Your task to perform on an android device: turn on translation in the chrome app Image 0: 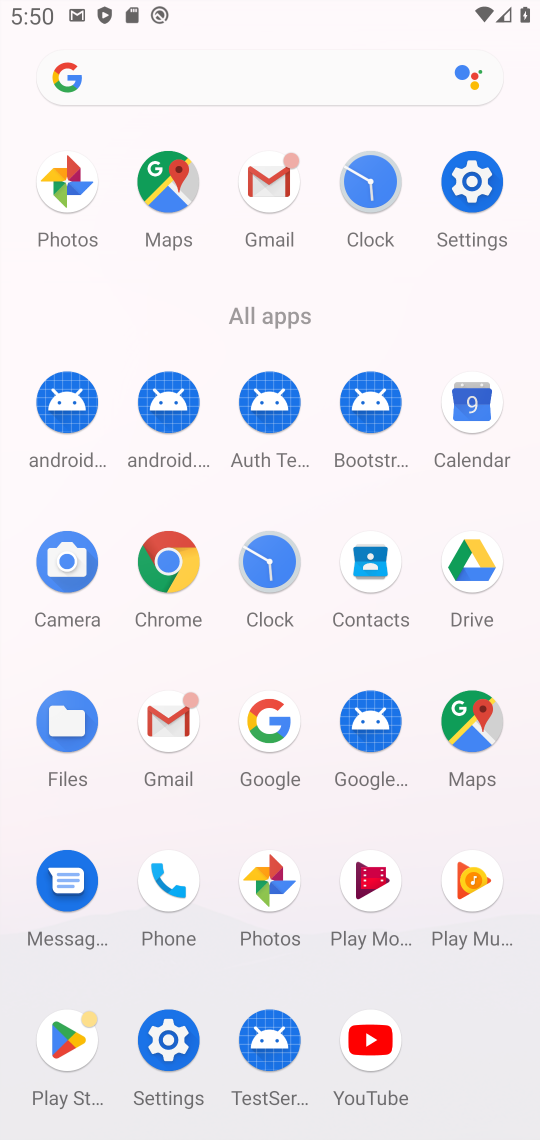
Step 0: click (186, 578)
Your task to perform on an android device: turn on translation in the chrome app Image 1: 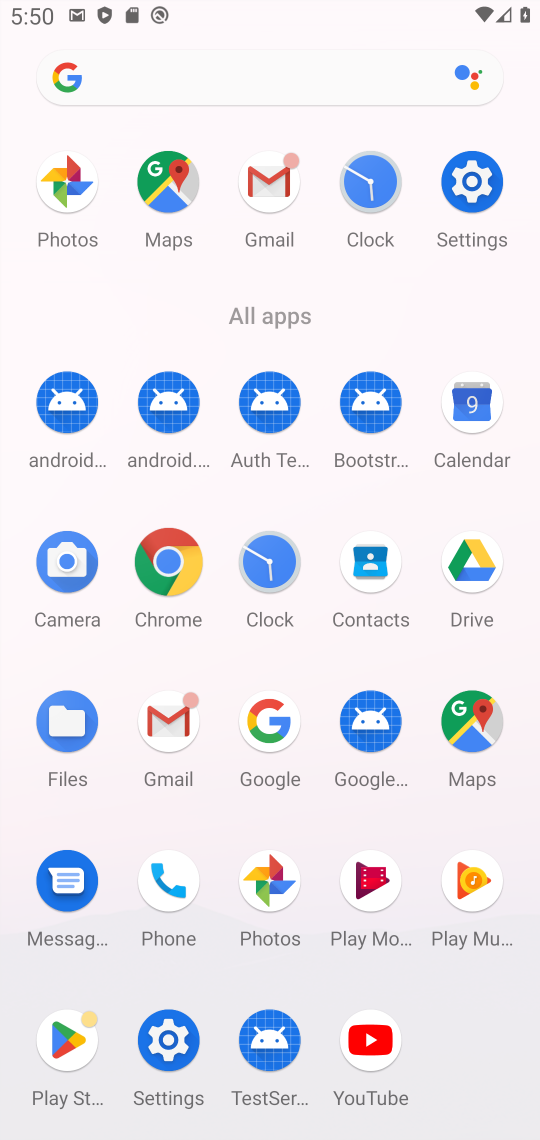
Step 1: click (180, 577)
Your task to perform on an android device: turn on translation in the chrome app Image 2: 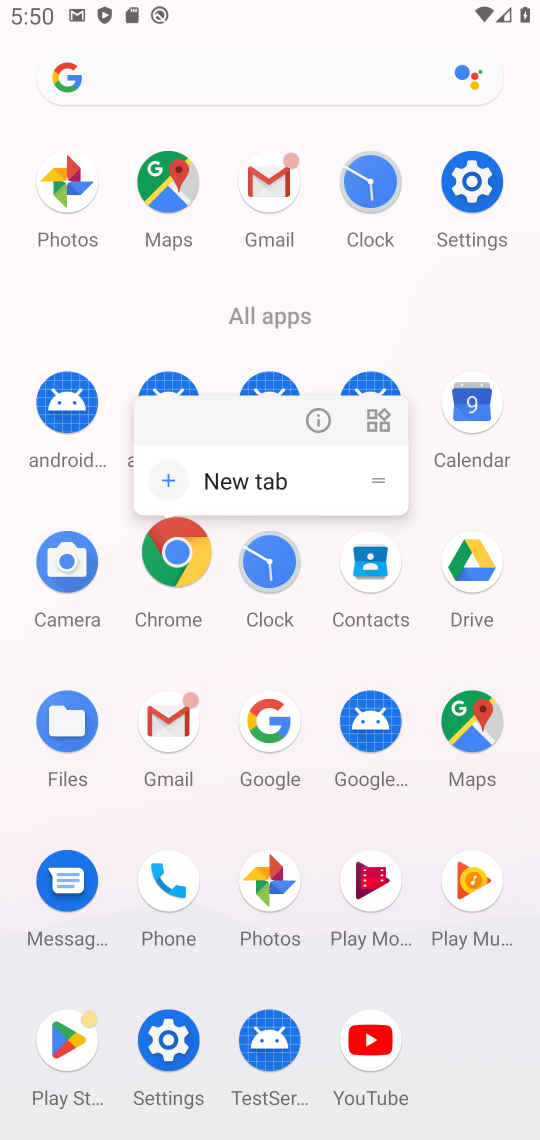
Step 2: click (188, 567)
Your task to perform on an android device: turn on translation in the chrome app Image 3: 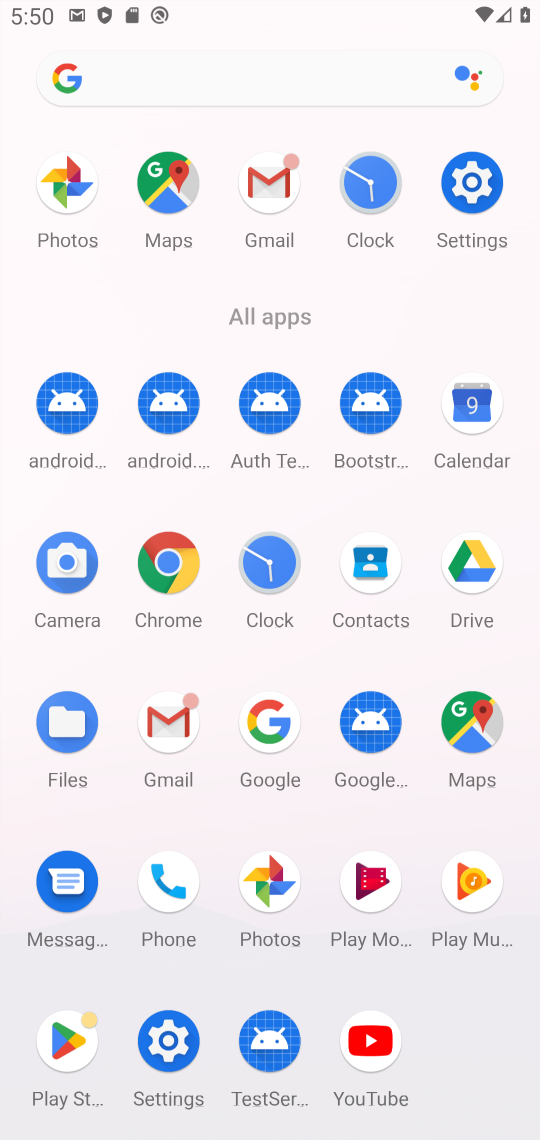
Step 3: click (162, 568)
Your task to perform on an android device: turn on translation in the chrome app Image 4: 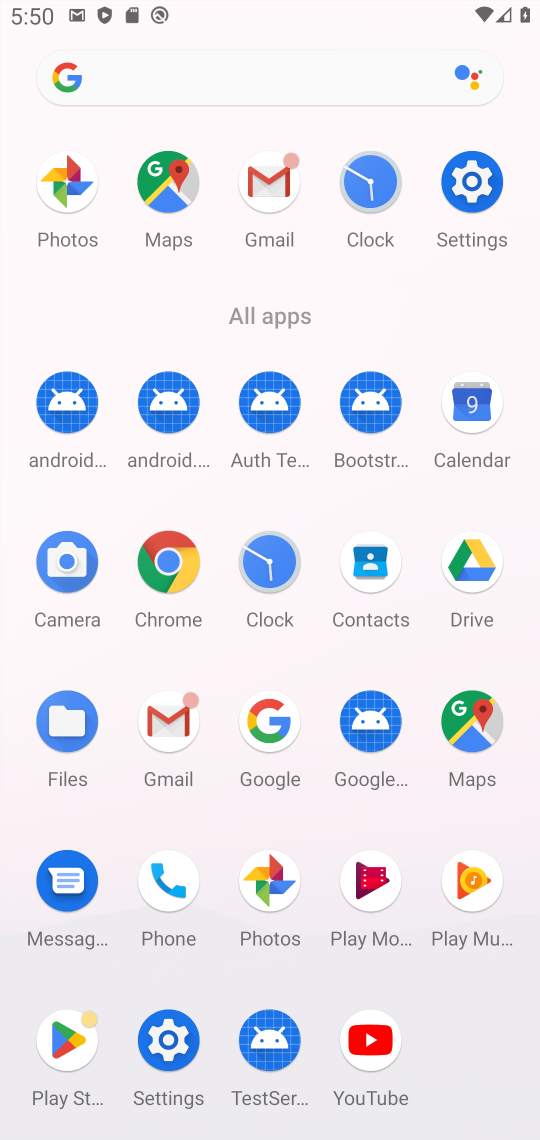
Step 4: click (173, 551)
Your task to perform on an android device: turn on translation in the chrome app Image 5: 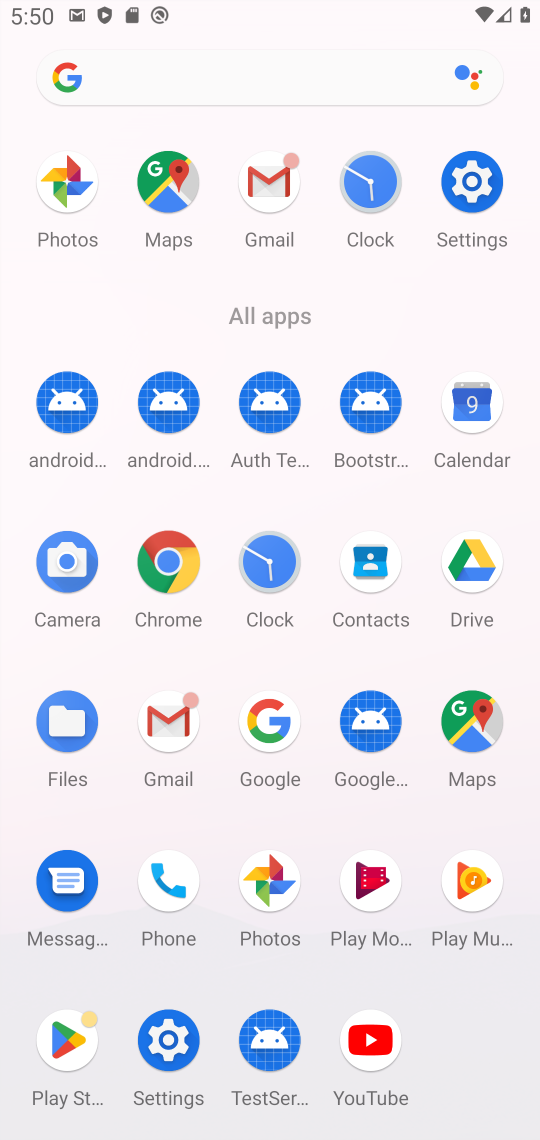
Step 5: click (201, 542)
Your task to perform on an android device: turn on translation in the chrome app Image 6: 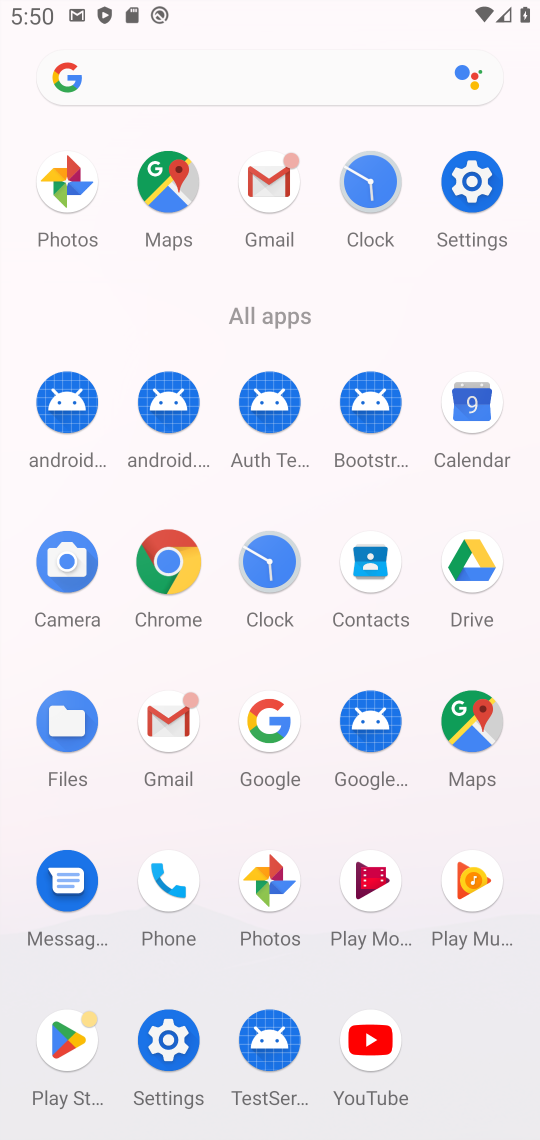
Step 6: click (193, 608)
Your task to perform on an android device: turn on translation in the chrome app Image 7: 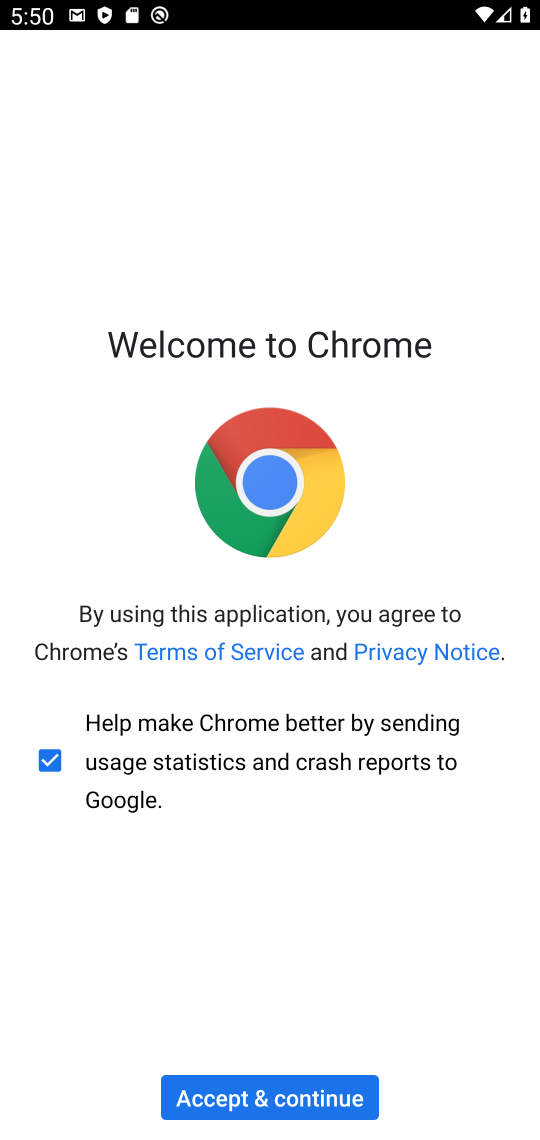
Step 7: click (288, 1118)
Your task to perform on an android device: turn on translation in the chrome app Image 8: 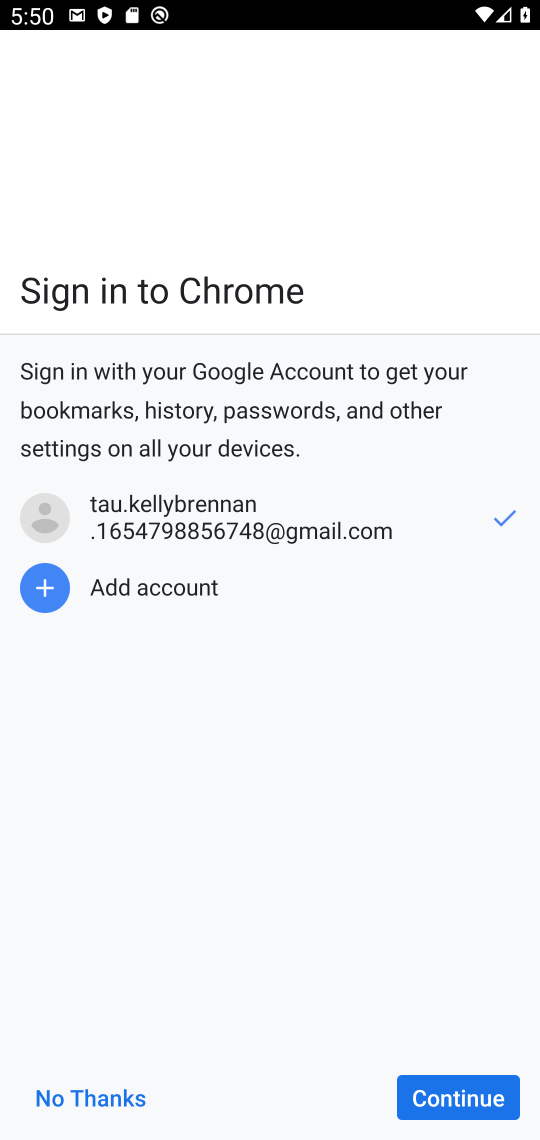
Step 8: click (114, 1091)
Your task to perform on an android device: turn on translation in the chrome app Image 9: 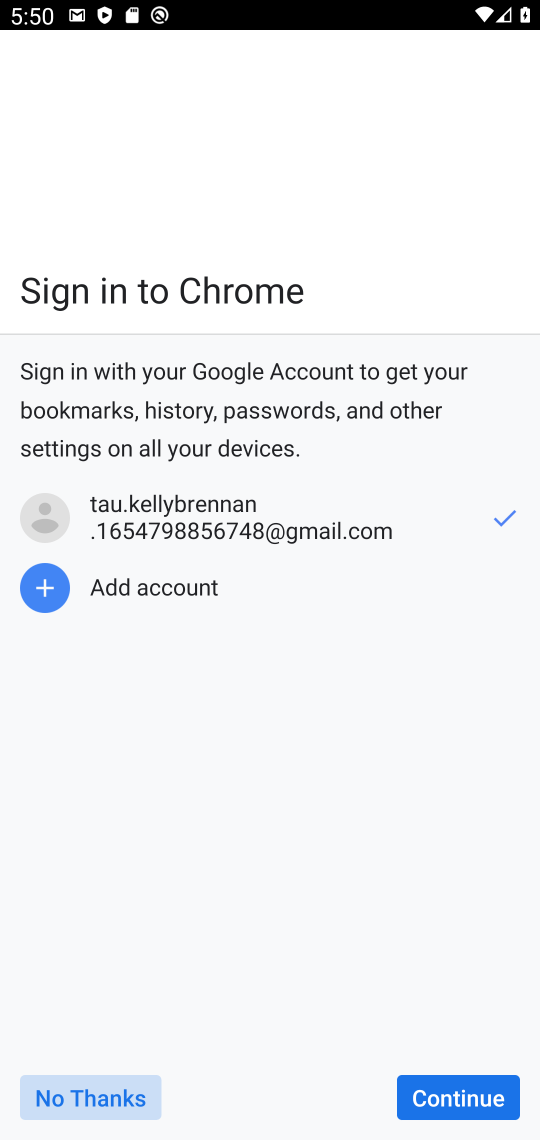
Step 9: click (108, 1094)
Your task to perform on an android device: turn on translation in the chrome app Image 10: 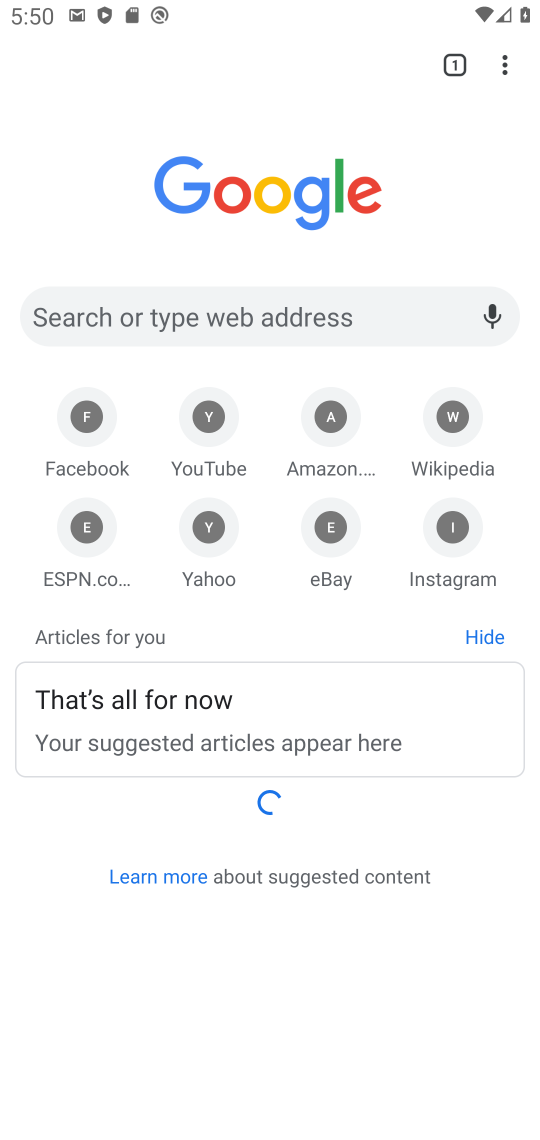
Step 10: drag from (507, 42) to (435, 721)
Your task to perform on an android device: turn on translation in the chrome app Image 11: 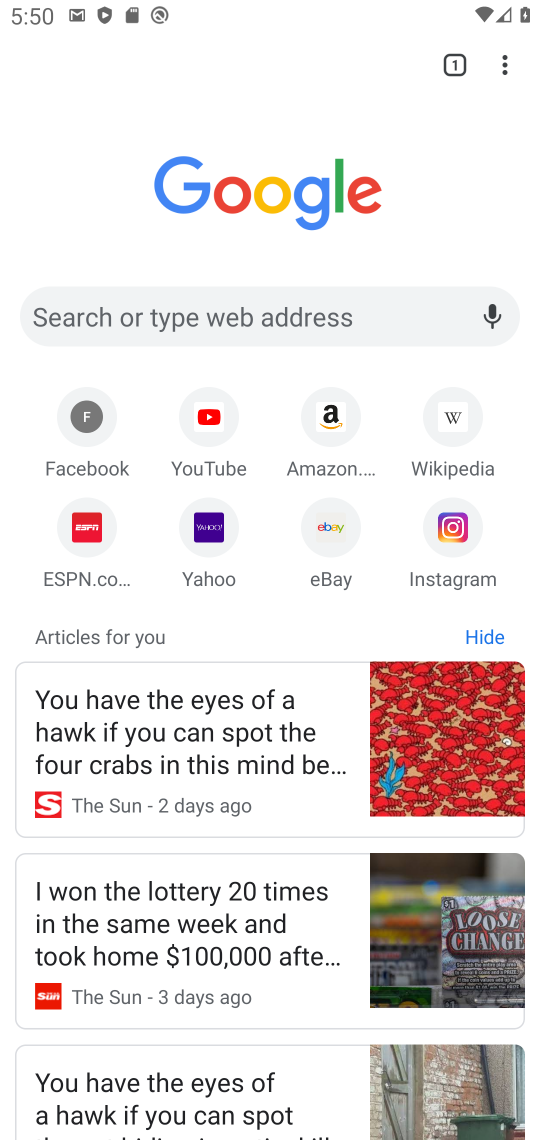
Step 11: drag from (512, 70) to (282, 533)
Your task to perform on an android device: turn on translation in the chrome app Image 12: 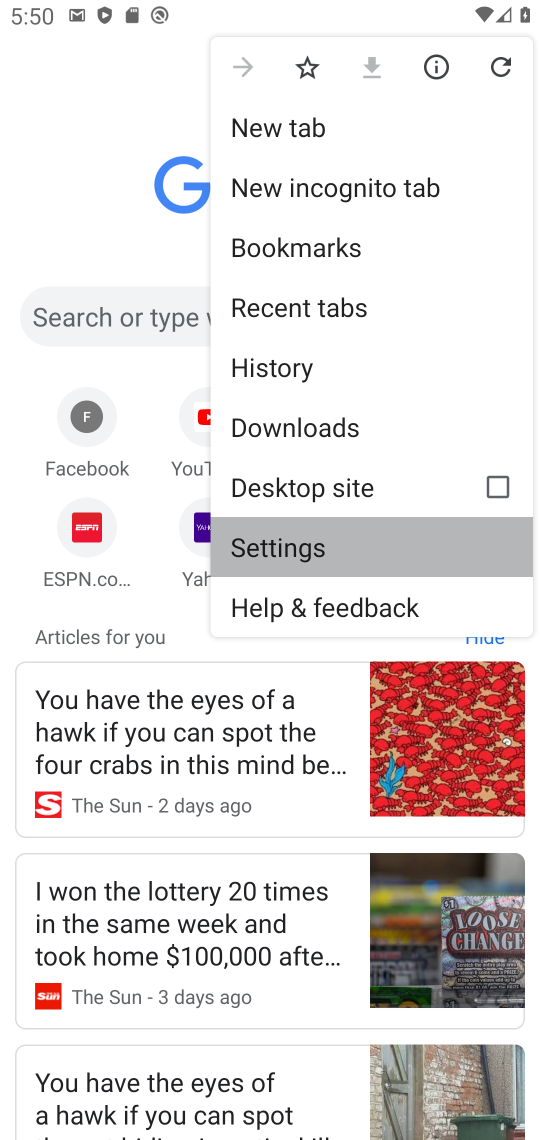
Step 12: click (277, 542)
Your task to perform on an android device: turn on translation in the chrome app Image 13: 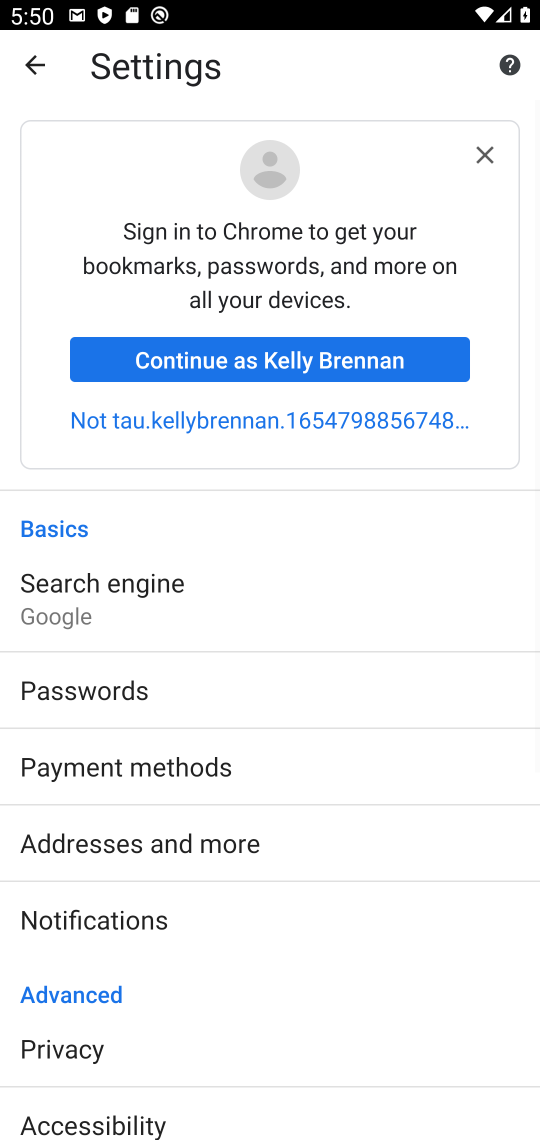
Step 13: drag from (155, 996) to (155, 353)
Your task to perform on an android device: turn on translation in the chrome app Image 14: 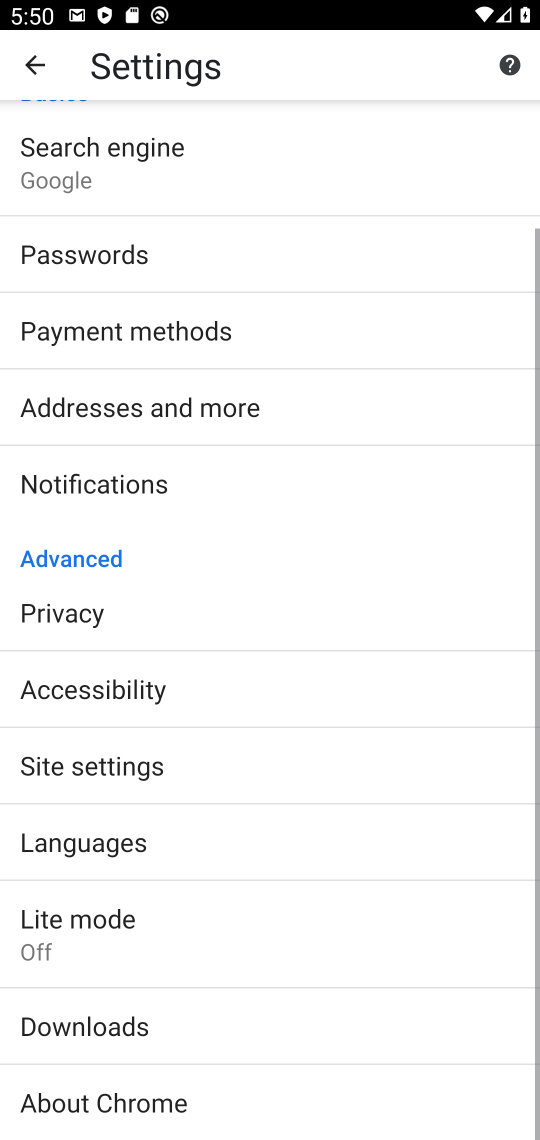
Step 14: drag from (177, 971) to (185, 444)
Your task to perform on an android device: turn on translation in the chrome app Image 15: 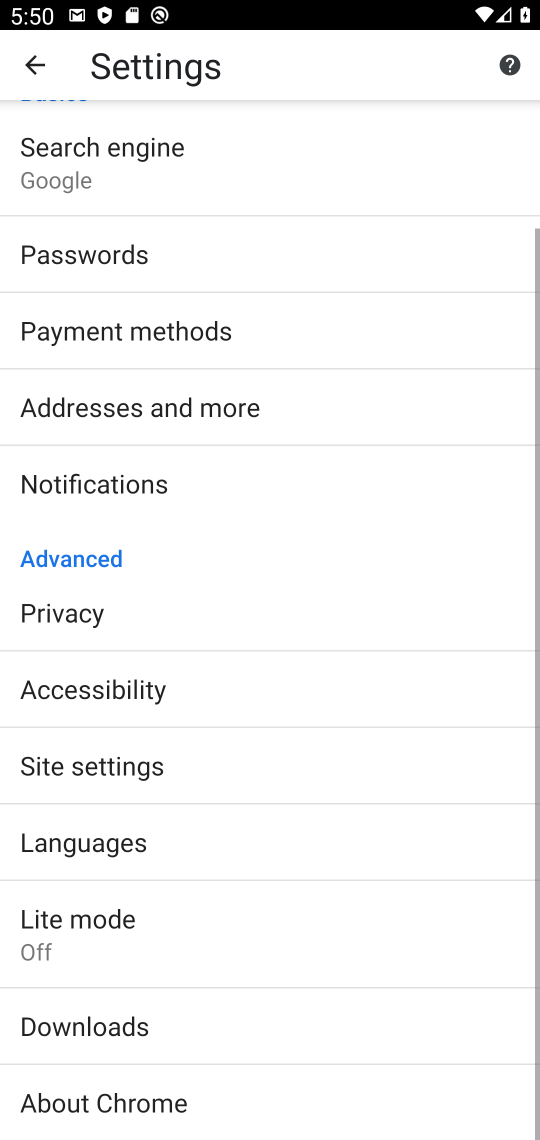
Step 15: drag from (198, 749) to (195, 298)
Your task to perform on an android device: turn on translation in the chrome app Image 16: 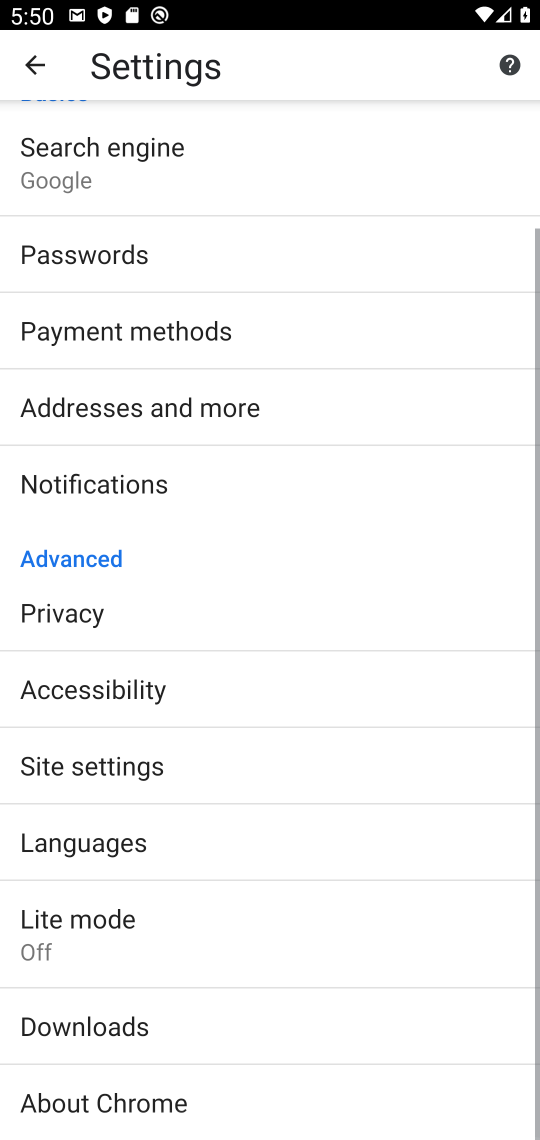
Step 16: drag from (178, 933) to (192, 273)
Your task to perform on an android device: turn on translation in the chrome app Image 17: 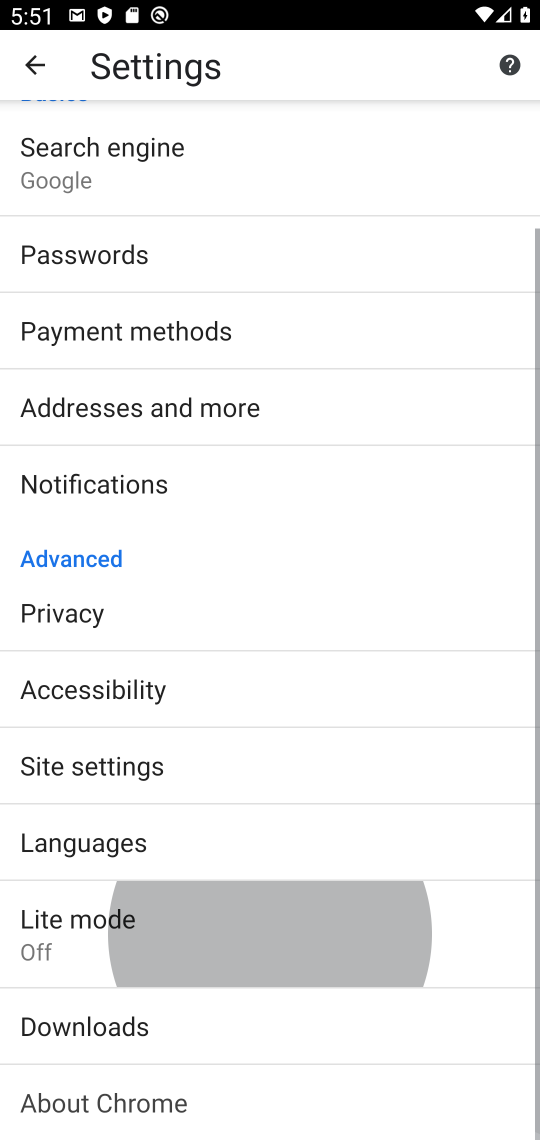
Step 17: click (183, 383)
Your task to perform on an android device: turn on translation in the chrome app Image 18: 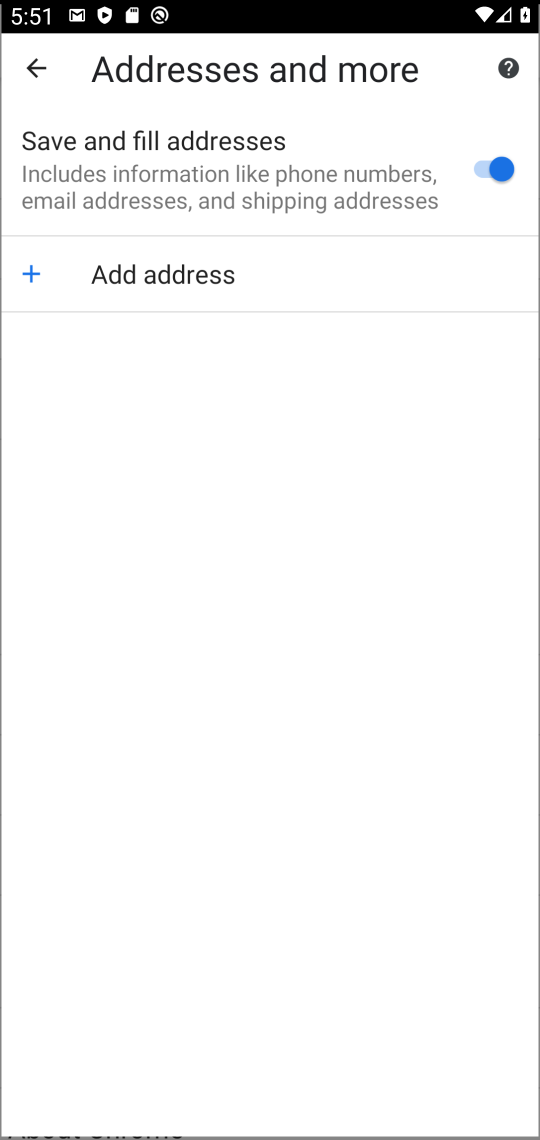
Step 18: click (97, 838)
Your task to perform on an android device: turn on translation in the chrome app Image 19: 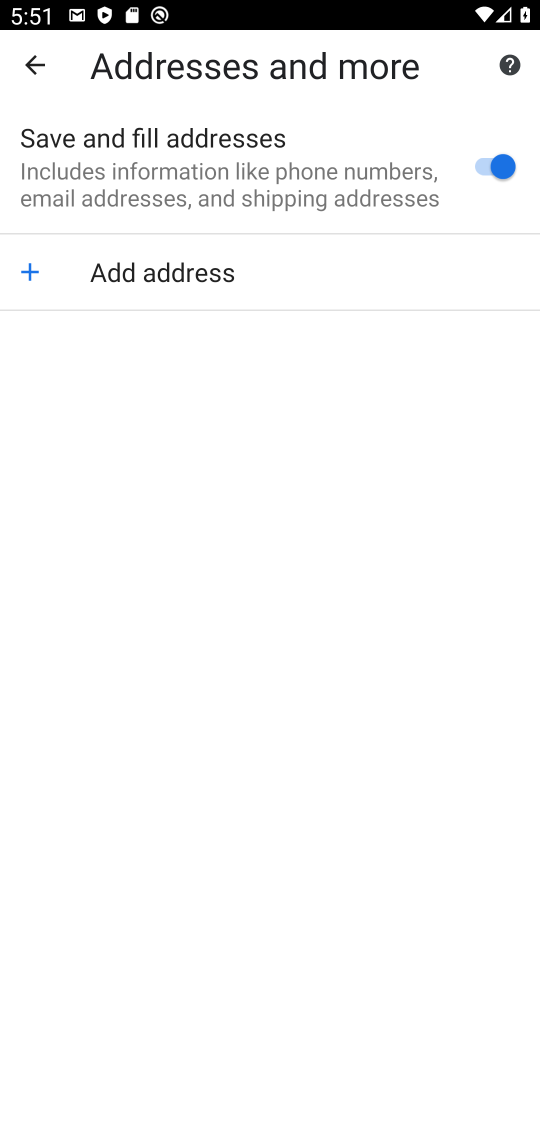
Step 19: click (97, 838)
Your task to perform on an android device: turn on translation in the chrome app Image 20: 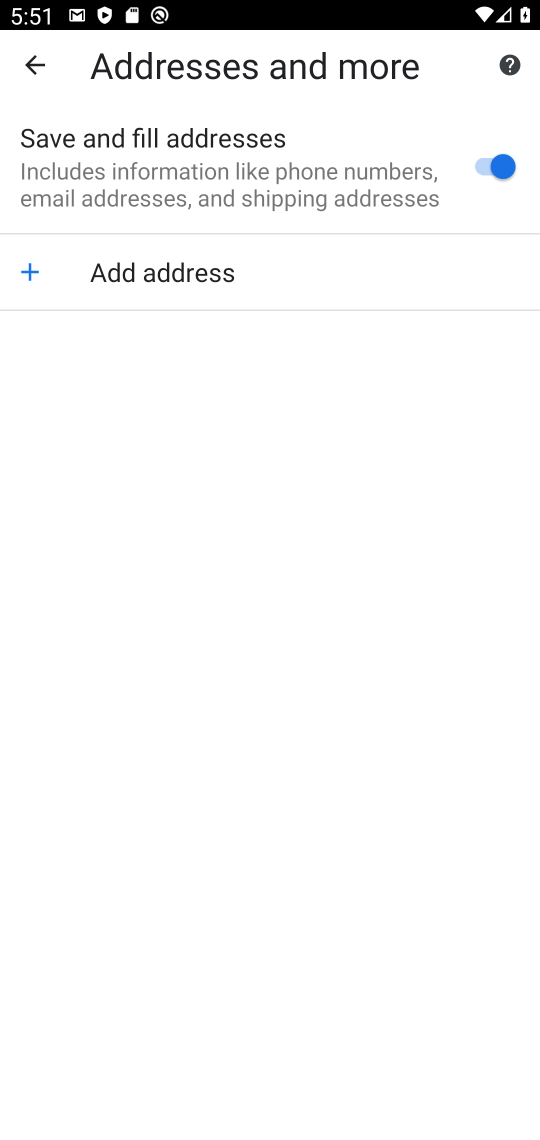
Step 20: click (98, 839)
Your task to perform on an android device: turn on translation in the chrome app Image 21: 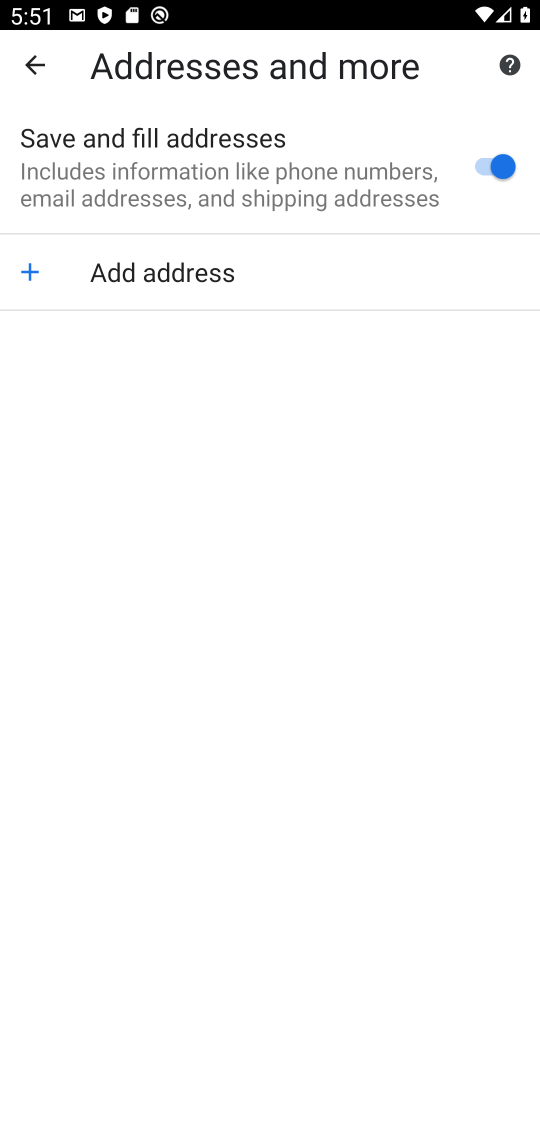
Step 21: click (34, 64)
Your task to perform on an android device: turn on translation in the chrome app Image 22: 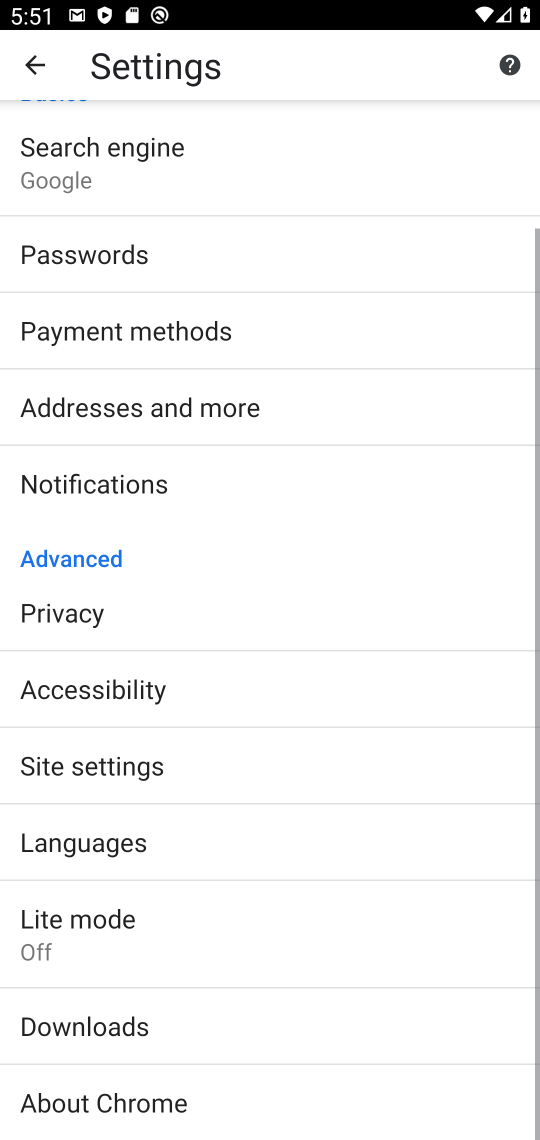
Step 22: click (132, 915)
Your task to perform on an android device: turn on translation in the chrome app Image 23: 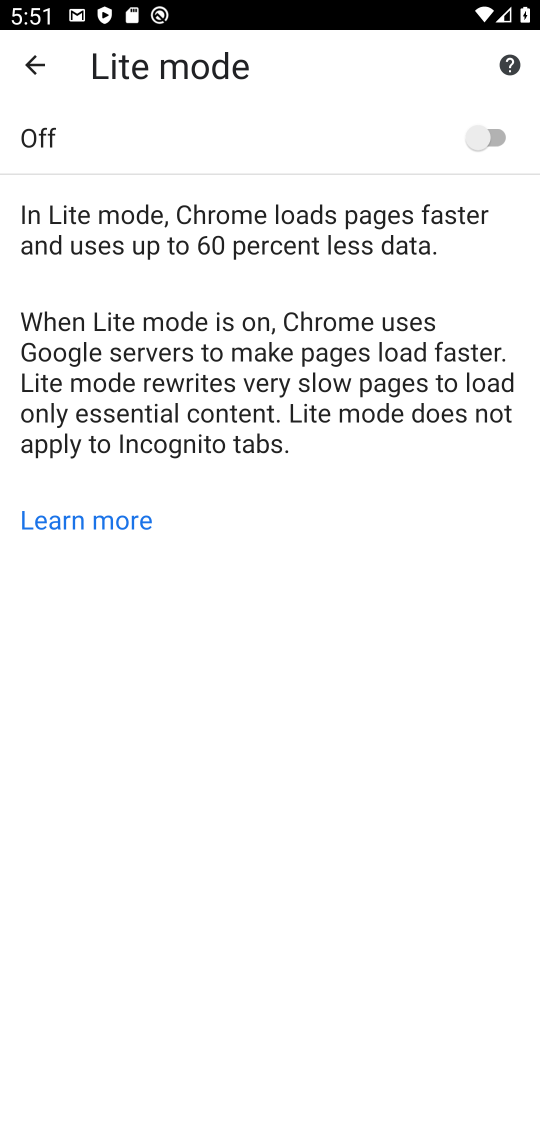
Step 23: click (30, 71)
Your task to perform on an android device: turn on translation in the chrome app Image 24: 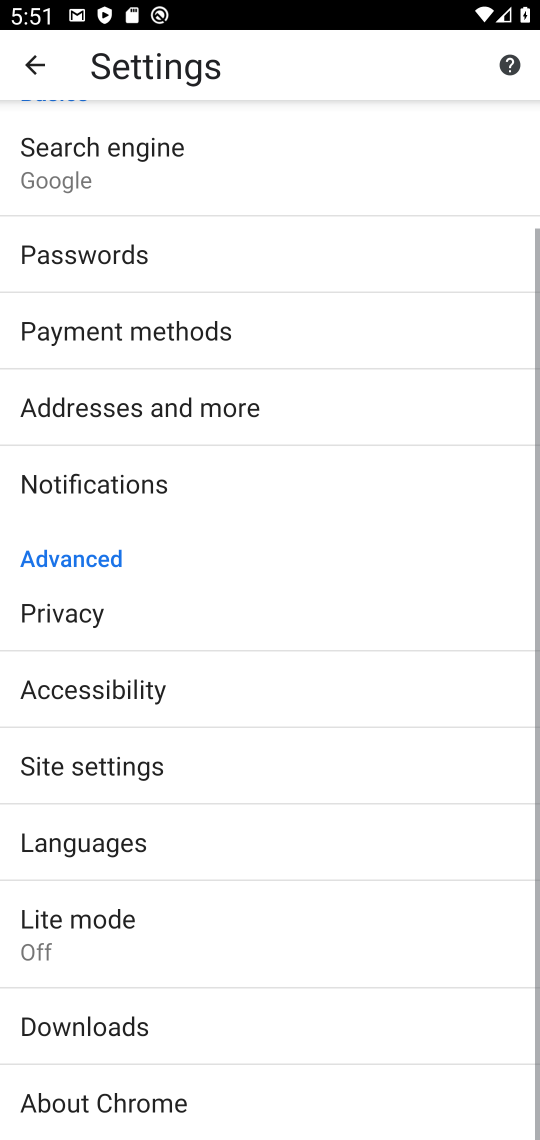
Step 24: click (184, 869)
Your task to perform on an android device: turn on translation in the chrome app Image 25: 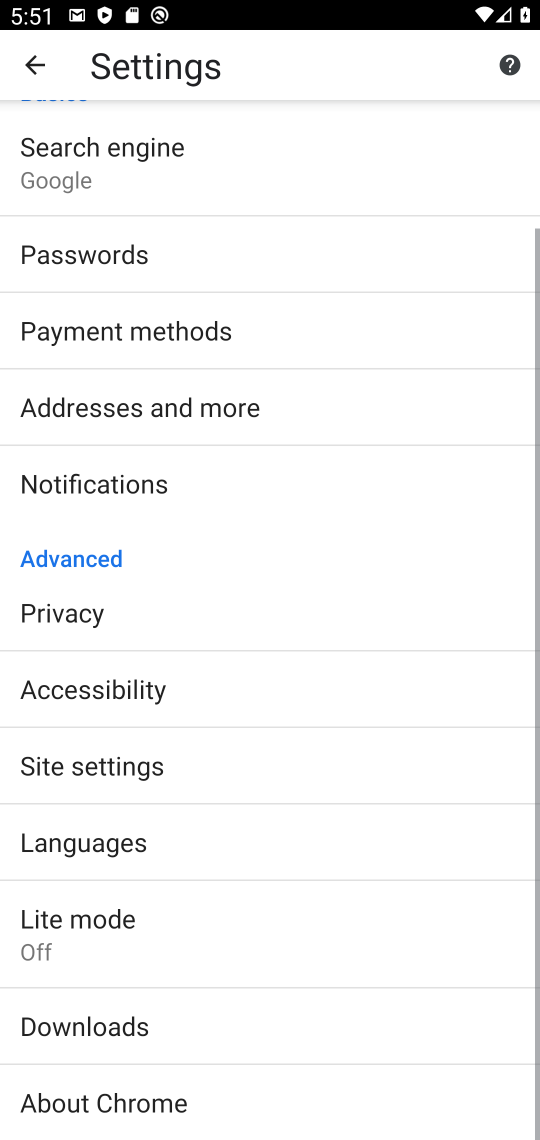
Step 25: click (187, 846)
Your task to perform on an android device: turn on translation in the chrome app Image 26: 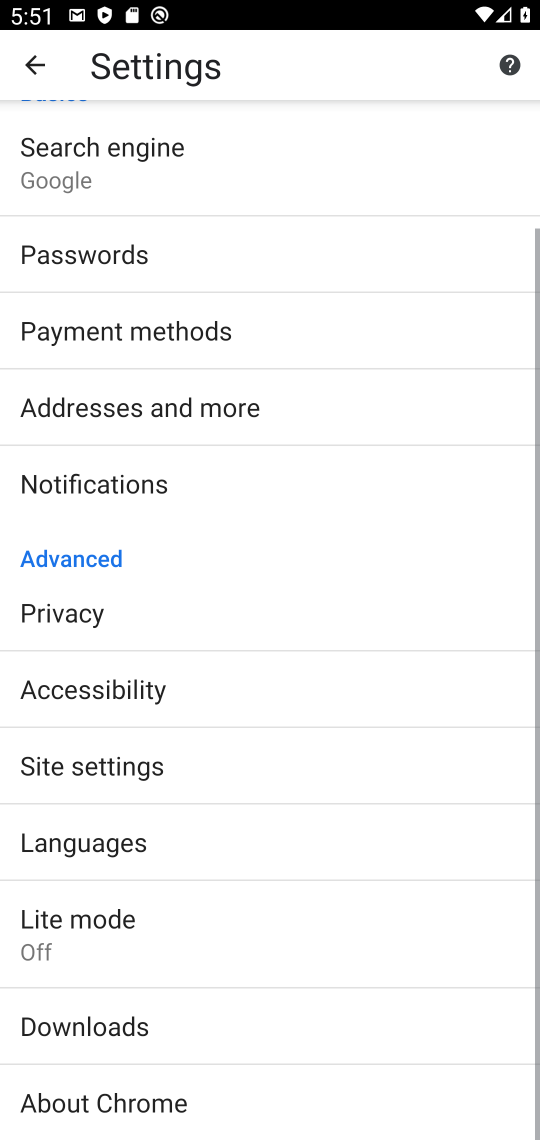
Step 26: click (208, 848)
Your task to perform on an android device: turn on translation in the chrome app Image 27: 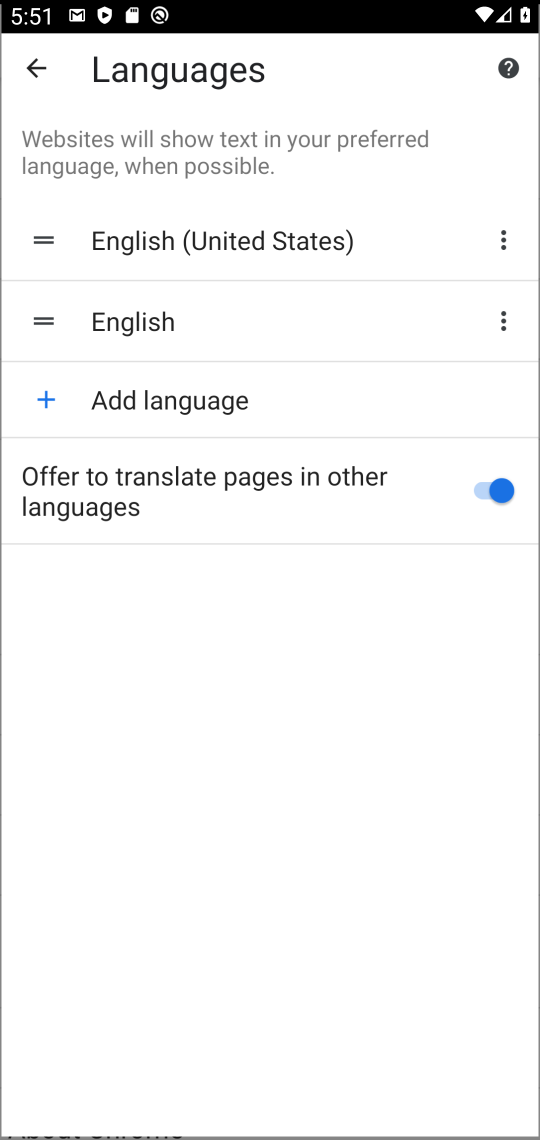
Step 27: click (212, 849)
Your task to perform on an android device: turn on translation in the chrome app Image 28: 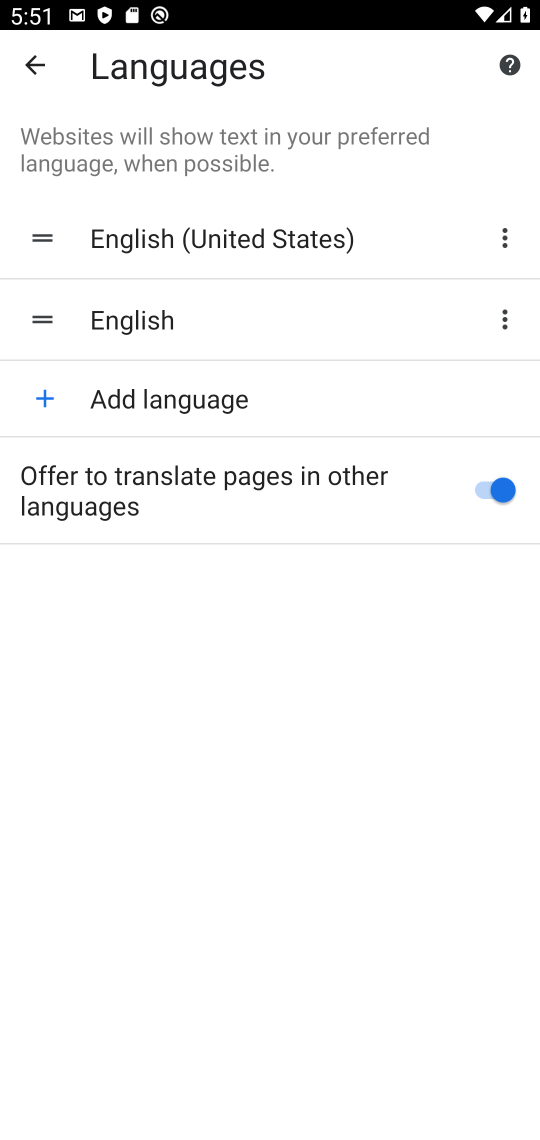
Step 28: task complete